Your task to perform on an android device: see creations saved in the google photos Image 0: 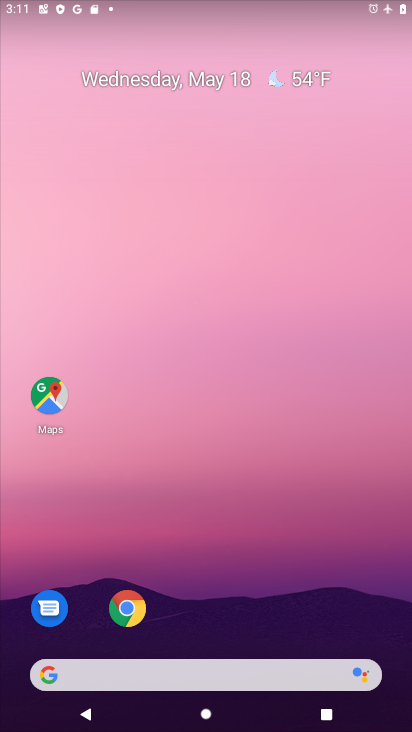
Step 0: drag from (359, 611) to (327, 1)
Your task to perform on an android device: see creations saved in the google photos Image 1: 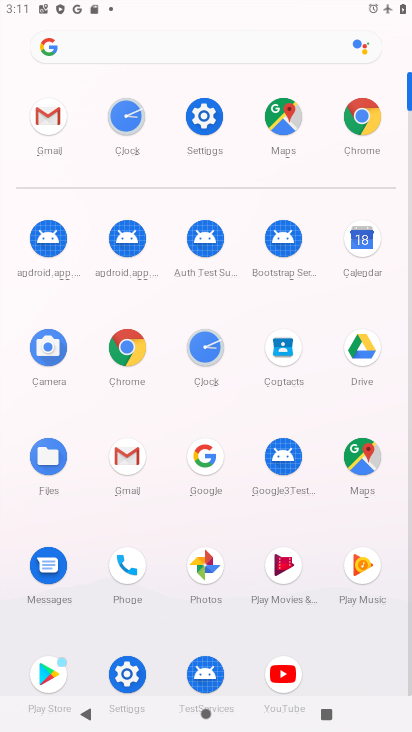
Step 1: click (212, 570)
Your task to perform on an android device: see creations saved in the google photos Image 2: 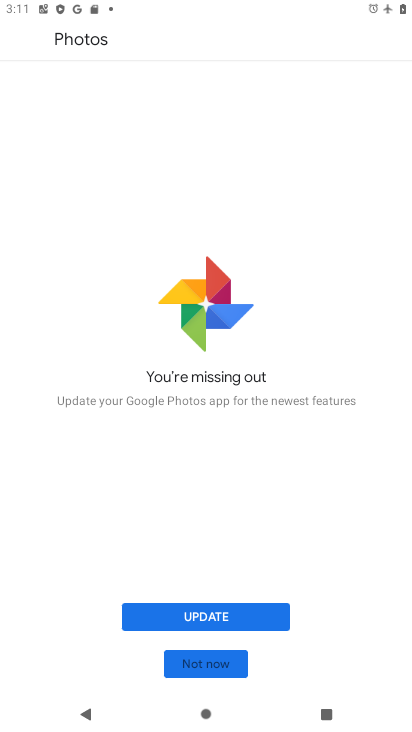
Step 2: click (218, 663)
Your task to perform on an android device: see creations saved in the google photos Image 3: 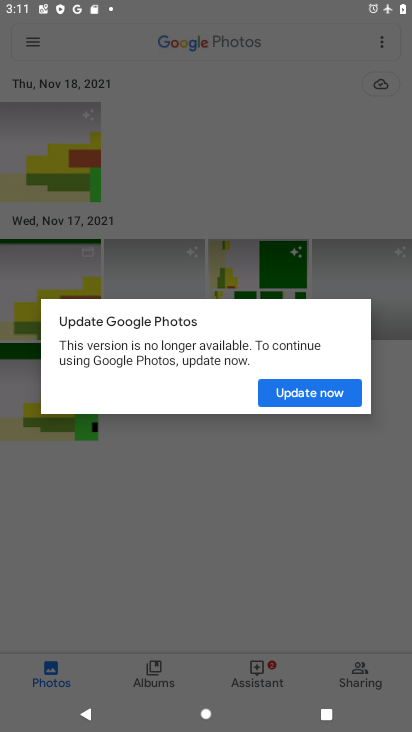
Step 3: click (302, 388)
Your task to perform on an android device: see creations saved in the google photos Image 4: 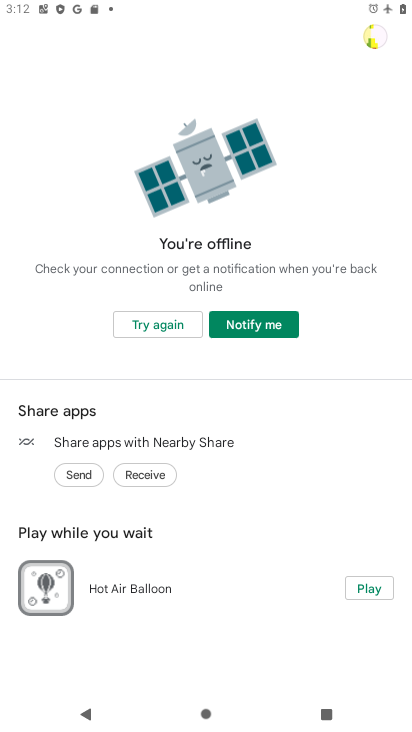
Step 4: press back button
Your task to perform on an android device: see creations saved in the google photos Image 5: 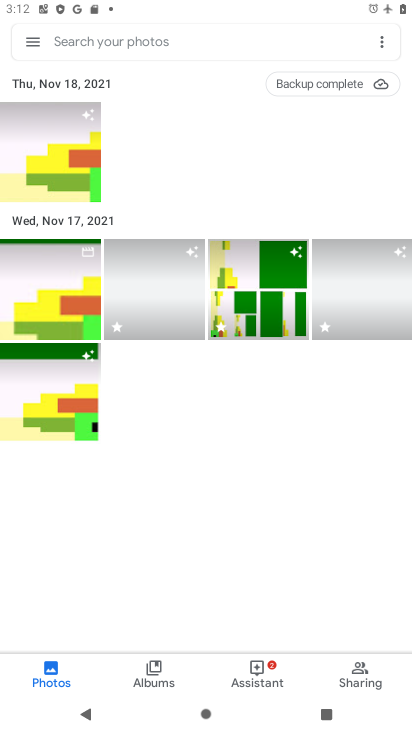
Step 5: click (103, 36)
Your task to perform on an android device: see creations saved in the google photos Image 6: 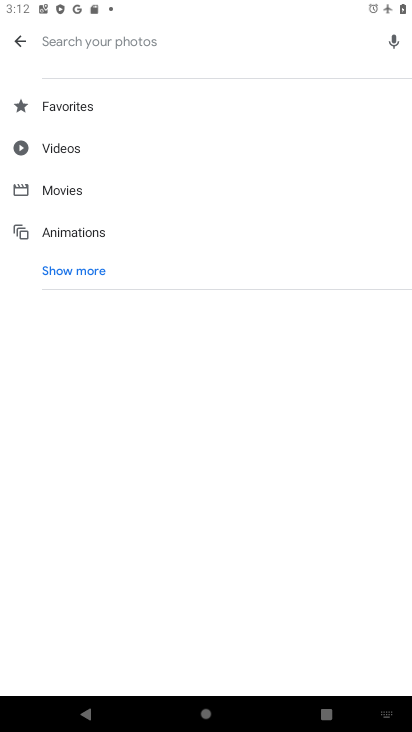
Step 6: click (55, 268)
Your task to perform on an android device: see creations saved in the google photos Image 7: 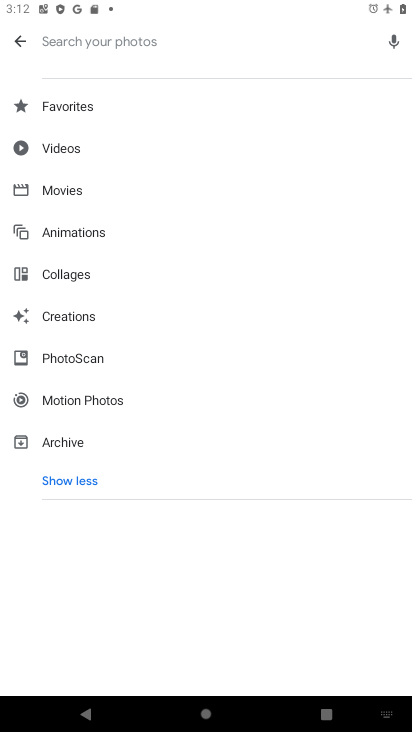
Step 7: click (55, 317)
Your task to perform on an android device: see creations saved in the google photos Image 8: 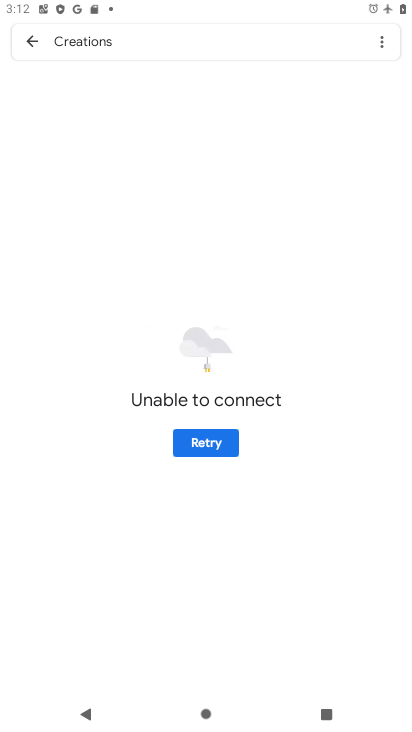
Step 8: task complete